Your task to perform on an android device: Go to display settings Image 0: 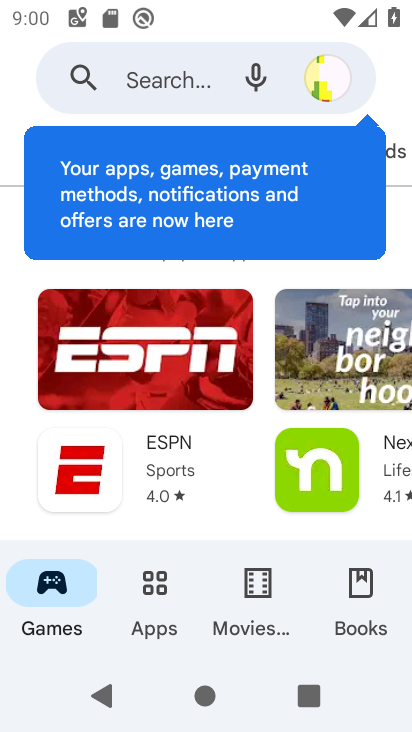
Step 0: press home button
Your task to perform on an android device: Go to display settings Image 1: 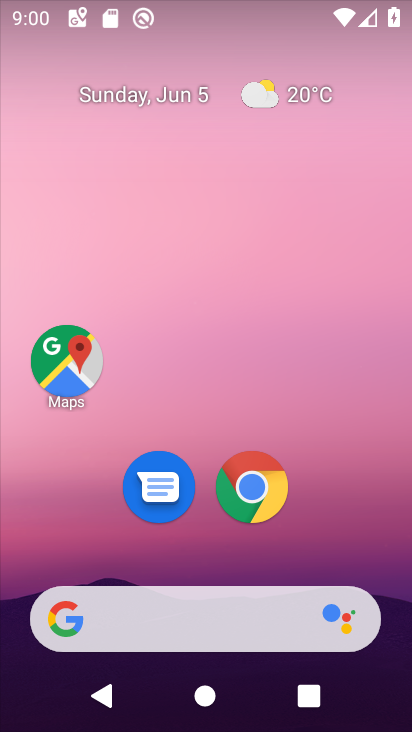
Step 1: drag from (255, 556) to (248, 147)
Your task to perform on an android device: Go to display settings Image 2: 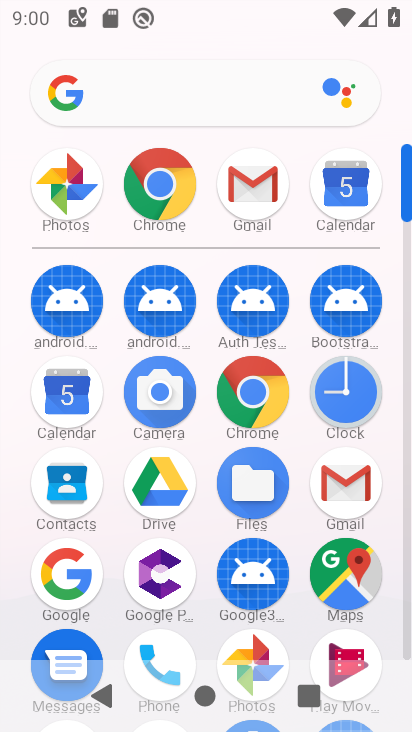
Step 2: drag from (150, 366) to (171, 213)
Your task to perform on an android device: Go to display settings Image 3: 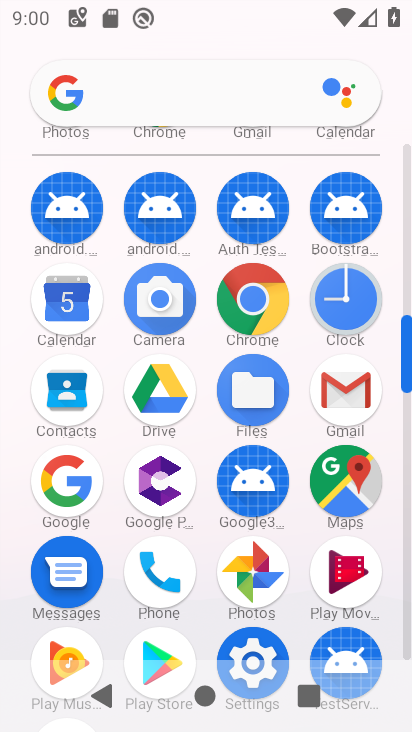
Step 3: click (244, 642)
Your task to perform on an android device: Go to display settings Image 4: 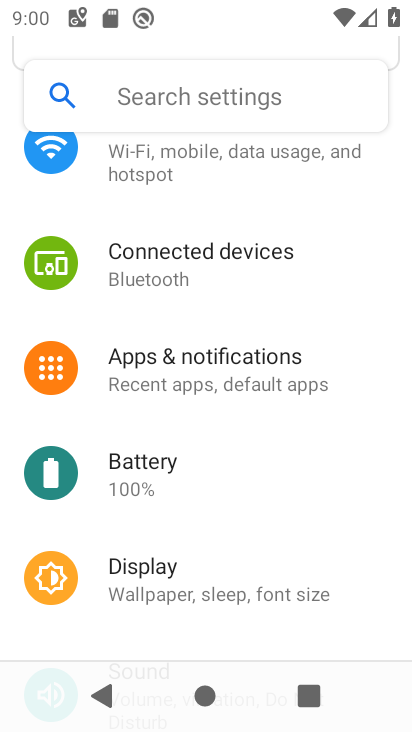
Step 4: click (178, 547)
Your task to perform on an android device: Go to display settings Image 5: 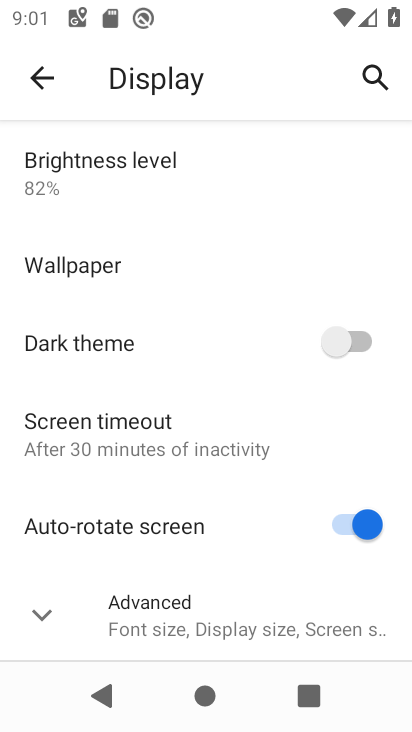
Step 5: task complete